Your task to perform on an android device: Open calendar and show me the first week of next month Image 0: 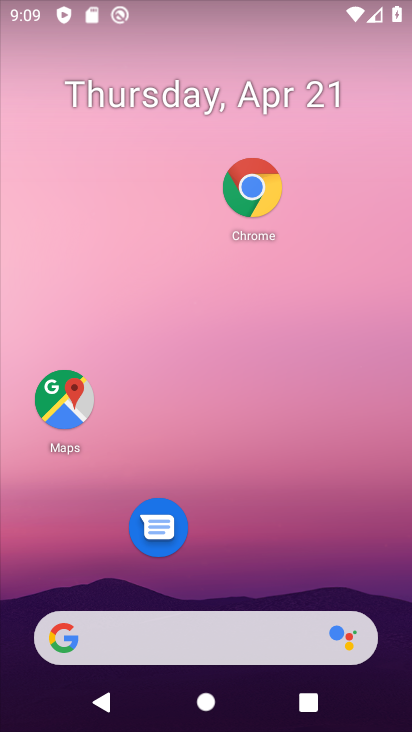
Step 0: drag from (164, 689) to (184, 172)
Your task to perform on an android device: Open calendar and show me the first week of next month Image 1: 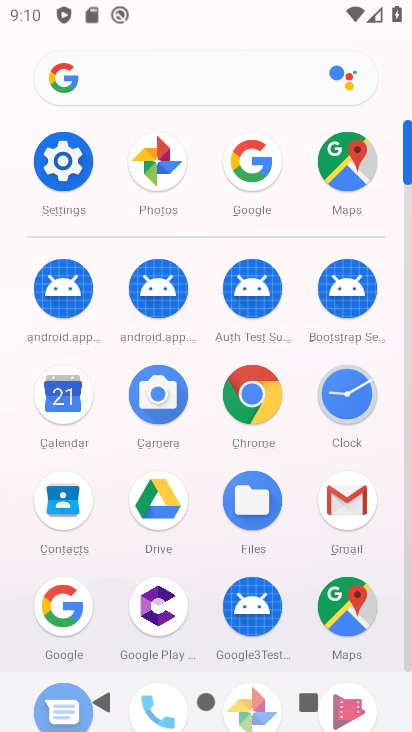
Step 1: click (64, 406)
Your task to perform on an android device: Open calendar and show me the first week of next month Image 2: 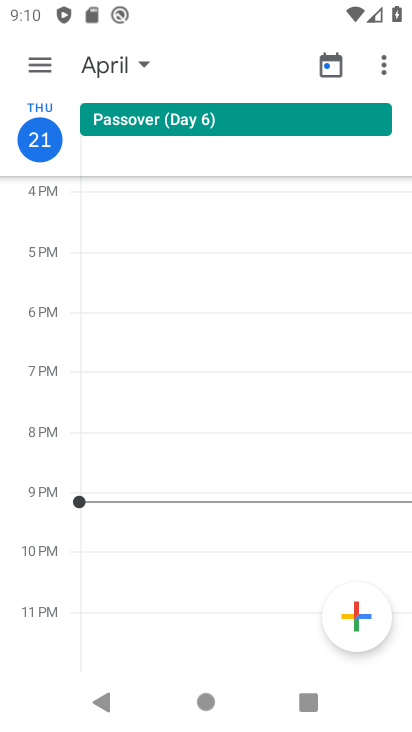
Step 2: click (117, 64)
Your task to perform on an android device: Open calendar and show me the first week of next month Image 3: 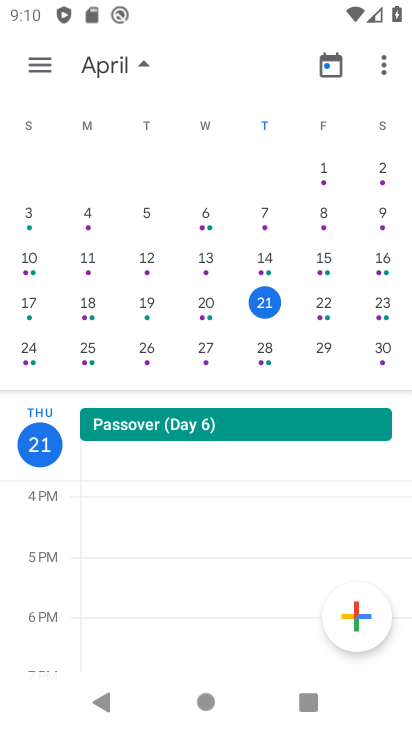
Step 3: task complete